Your task to perform on an android device: open sync settings in chrome Image 0: 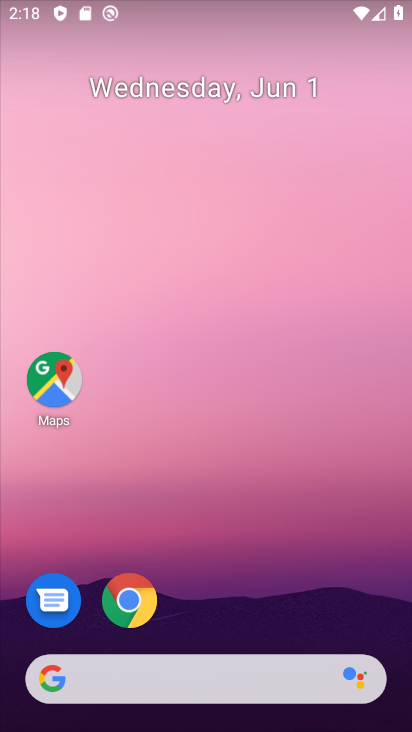
Step 0: drag from (235, 629) to (209, 252)
Your task to perform on an android device: open sync settings in chrome Image 1: 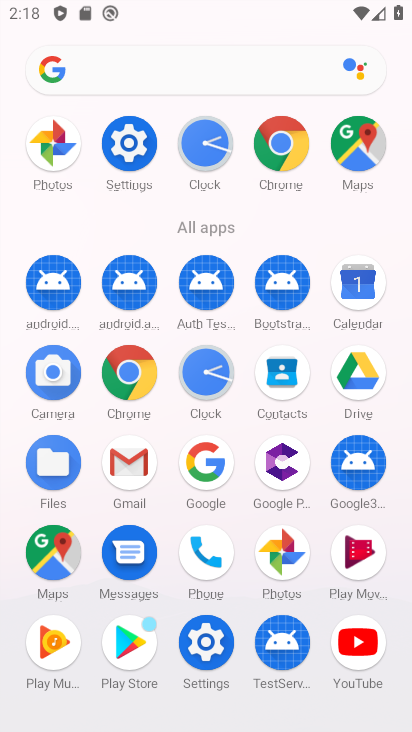
Step 1: click (123, 371)
Your task to perform on an android device: open sync settings in chrome Image 2: 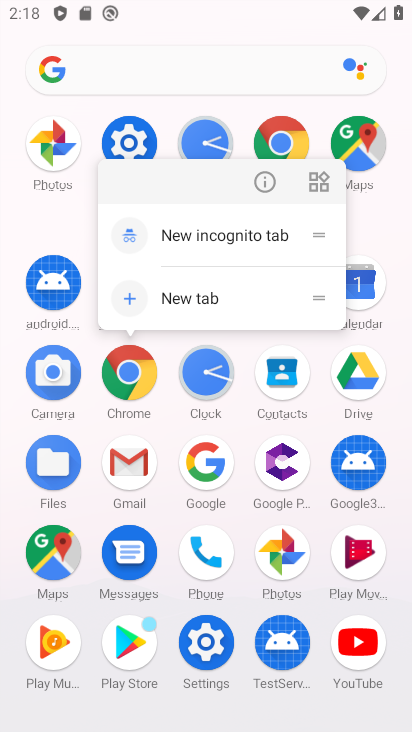
Step 2: click (124, 380)
Your task to perform on an android device: open sync settings in chrome Image 3: 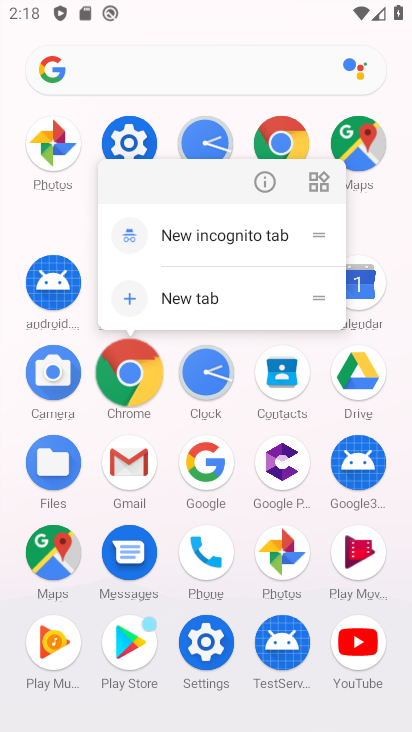
Step 3: click (126, 378)
Your task to perform on an android device: open sync settings in chrome Image 4: 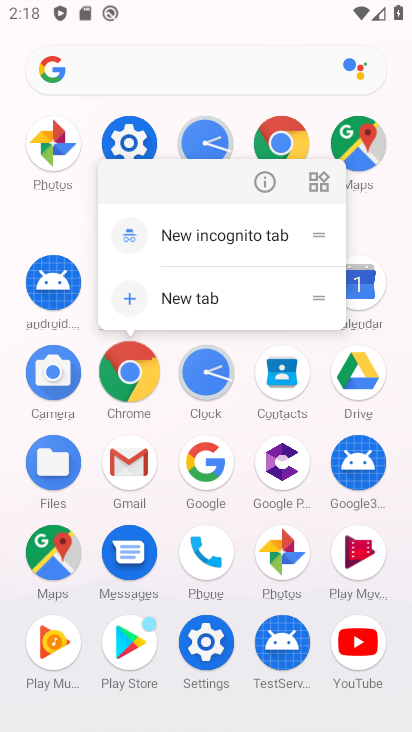
Step 4: click (126, 378)
Your task to perform on an android device: open sync settings in chrome Image 5: 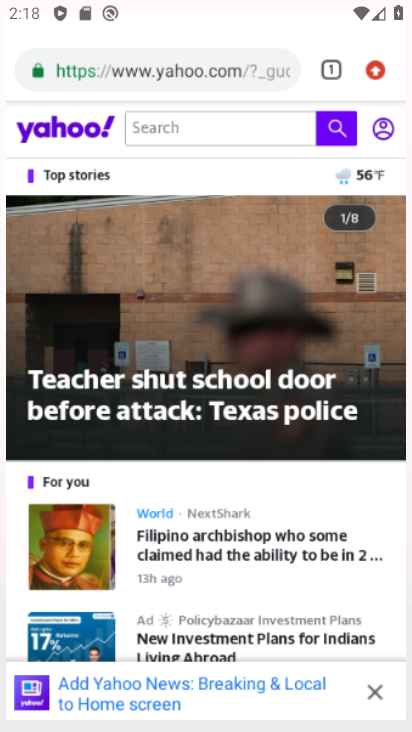
Step 5: click (126, 378)
Your task to perform on an android device: open sync settings in chrome Image 6: 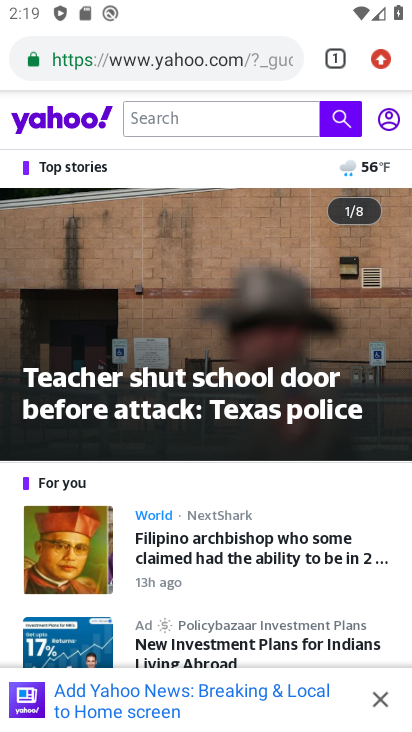
Step 6: click (378, 67)
Your task to perform on an android device: open sync settings in chrome Image 7: 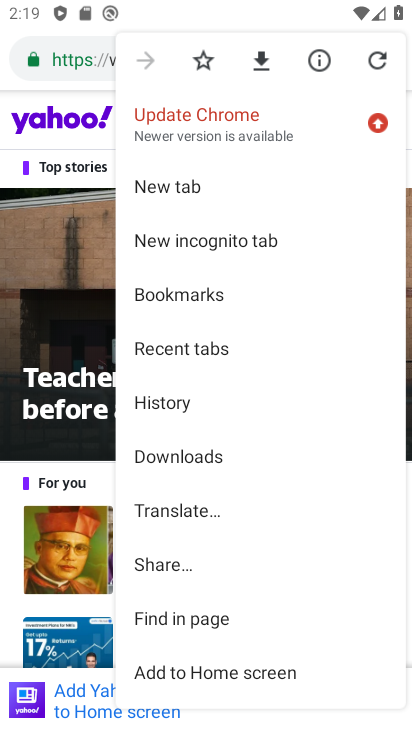
Step 7: drag from (178, 545) to (114, 155)
Your task to perform on an android device: open sync settings in chrome Image 8: 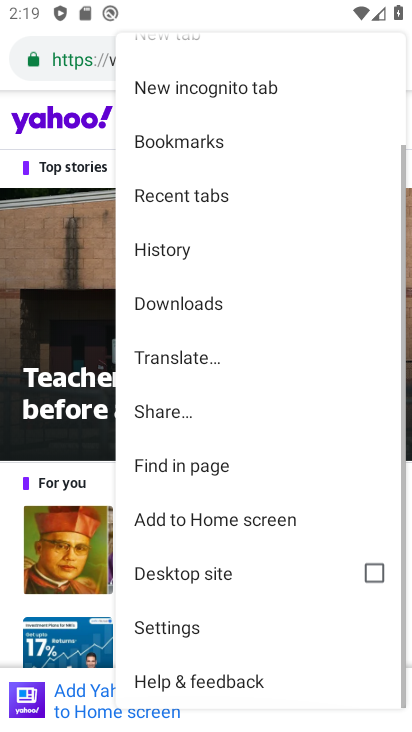
Step 8: click (171, 212)
Your task to perform on an android device: open sync settings in chrome Image 9: 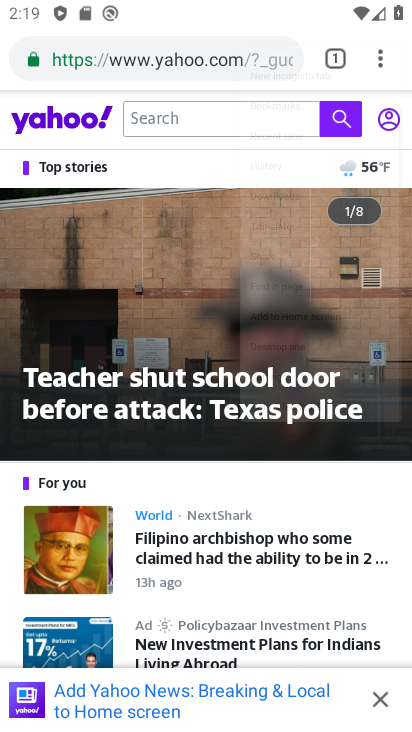
Step 9: click (177, 624)
Your task to perform on an android device: open sync settings in chrome Image 10: 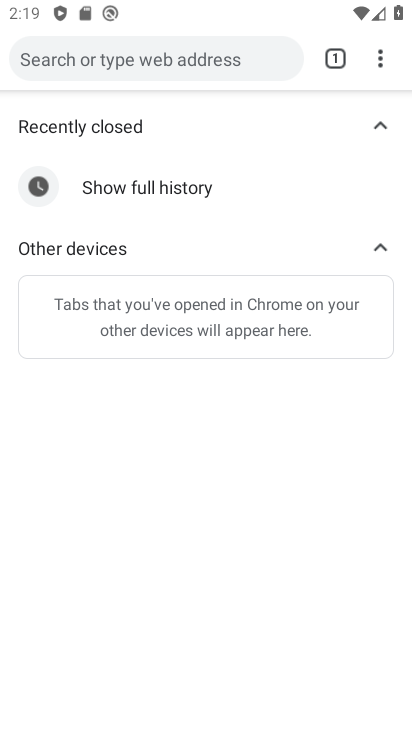
Step 10: click (177, 624)
Your task to perform on an android device: open sync settings in chrome Image 11: 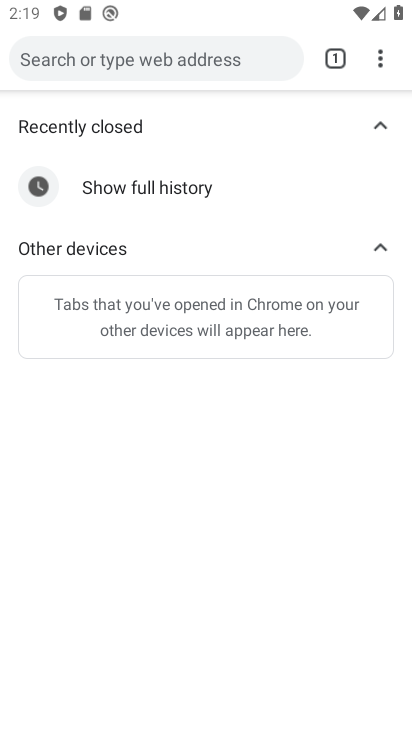
Step 11: drag from (375, 64) to (155, 539)
Your task to perform on an android device: open sync settings in chrome Image 12: 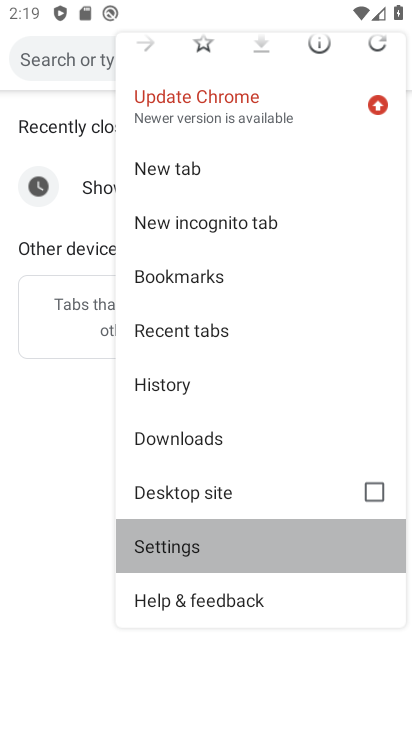
Step 12: click (155, 539)
Your task to perform on an android device: open sync settings in chrome Image 13: 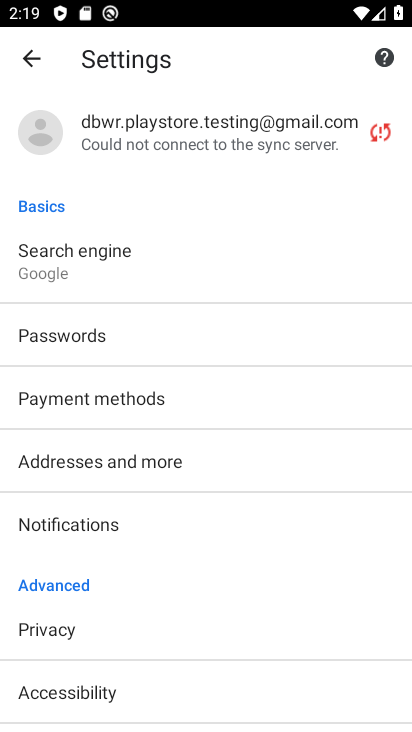
Step 13: drag from (58, 595) to (80, 231)
Your task to perform on an android device: open sync settings in chrome Image 14: 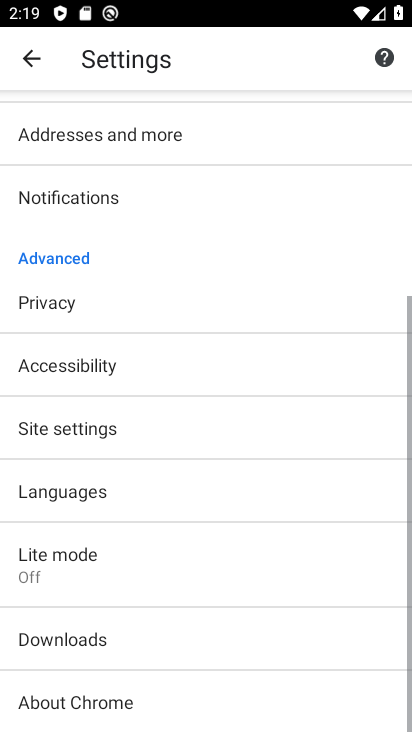
Step 14: drag from (111, 590) to (82, 337)
Your task to perform on an android device: open sync settings in chrome Image 15: 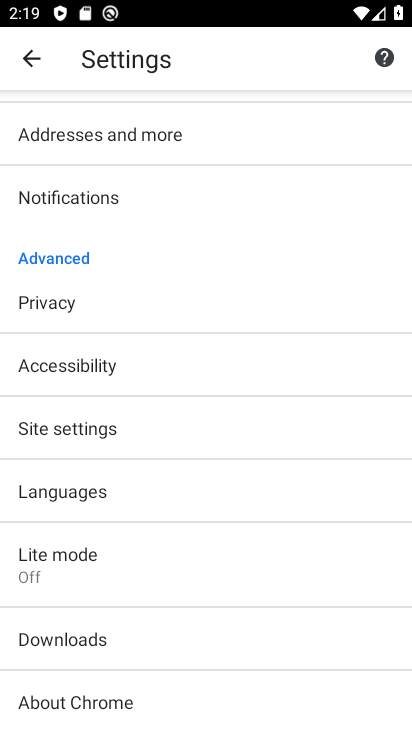
Step 15: click (48, 421)
Your task to perform on an android device: open sync settings in chrome Image 16: 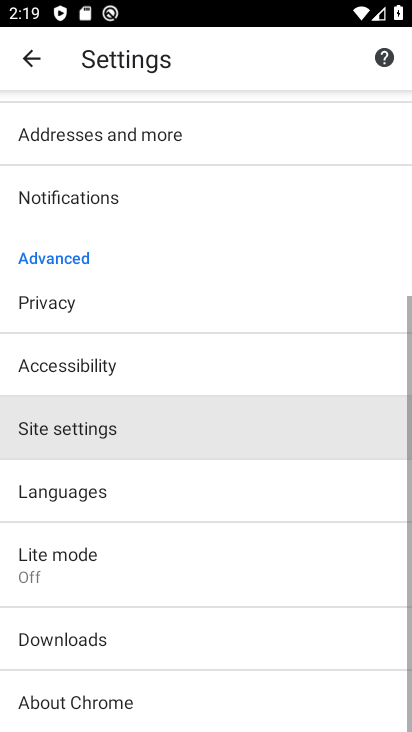
Step 16: click (54, 424)
Your task to perform on an android device: open sync settings in chrome Image 17: 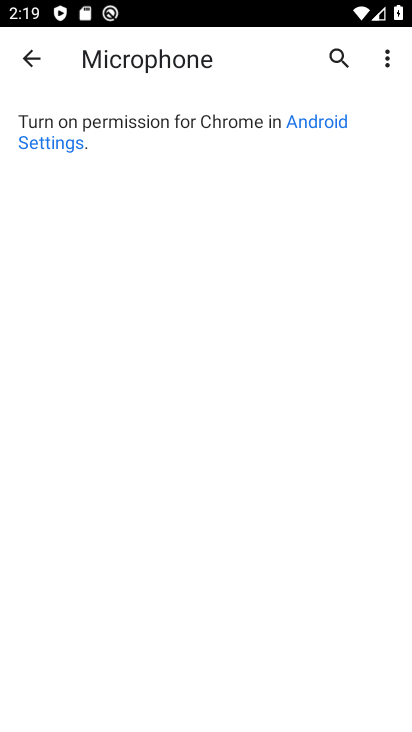
Step 17: click (14, 65)
Your task to perform on an android device: open sync settings in chrome Image 18: 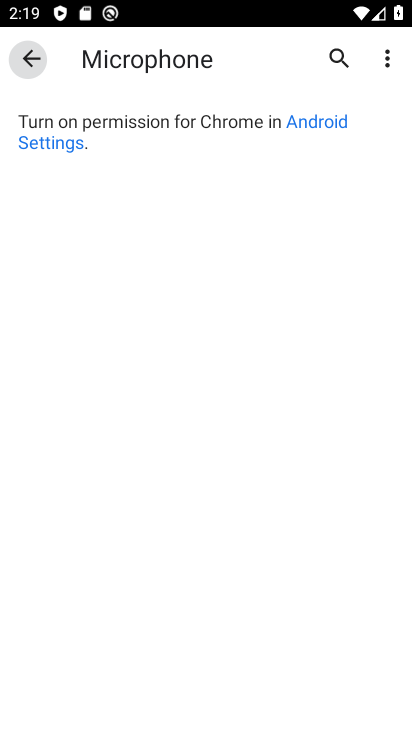
Step 18: click (23, 62)
Your task to perform on an android device: open sync settings in chrome Image 19: 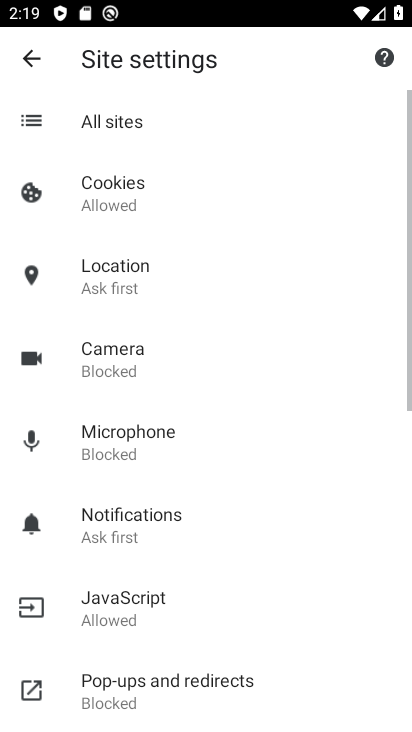
Step 19: drag from (133, 536) to (131, 227)
Your task to perform on an android device: open sync settings in chrome Image 20: 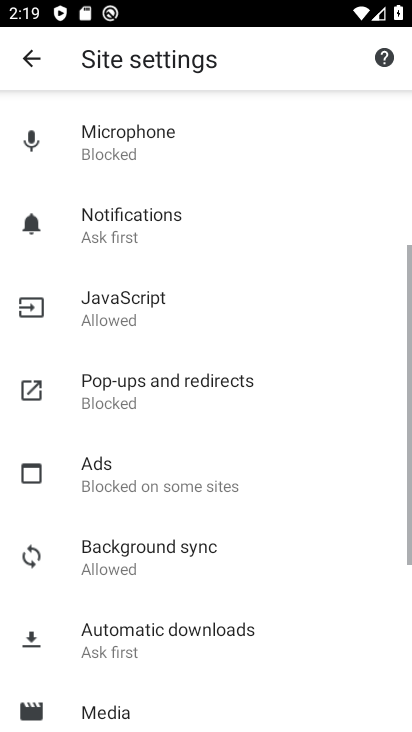
Step 20: drag from (101, 577) to (116, 326)
Your task to perform on an android device: open sync settings in chrome Image 21: 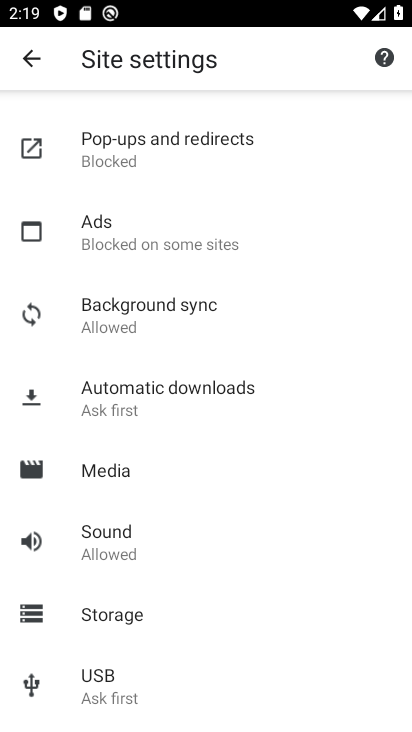
Step 21: click (124, 302)
Your task to perform on an android device: open sync settings in chrome Image 22: 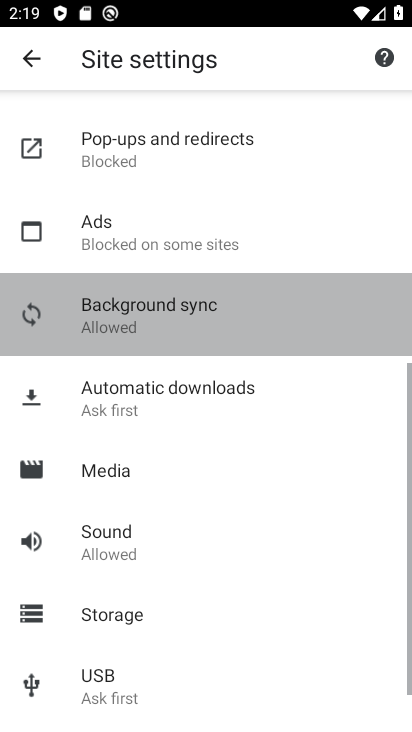
Step 22: click (123, 302)
Your task to perform on an android device: open sync settings in chrome Image 23: 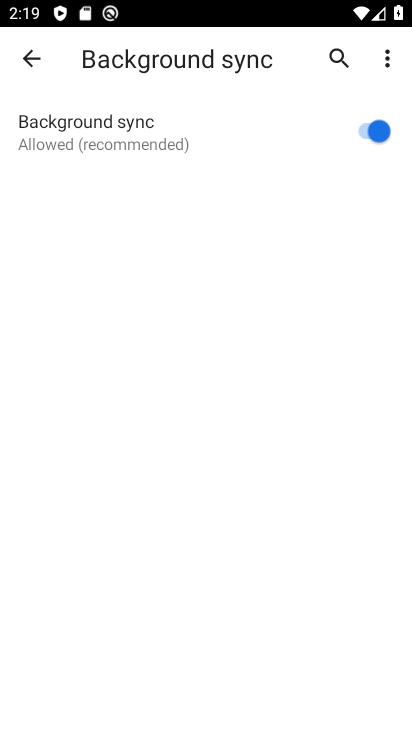
Step 23: task complete